Your task to perform on an android device: Go to battery settings Image 0: 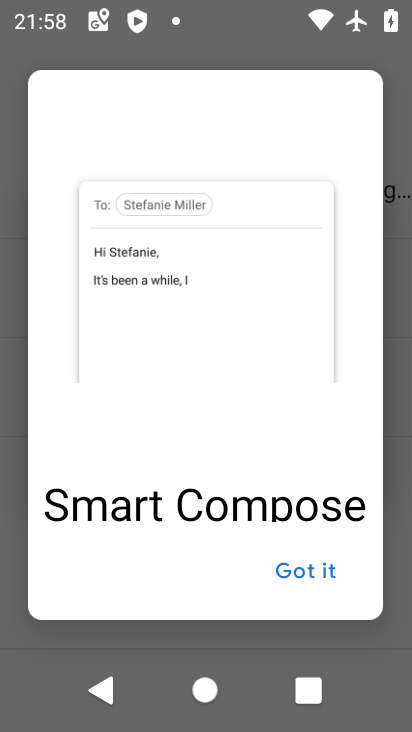
Step 0: press home button
Your task to perform on an android device: Go to battery settings Image 1: 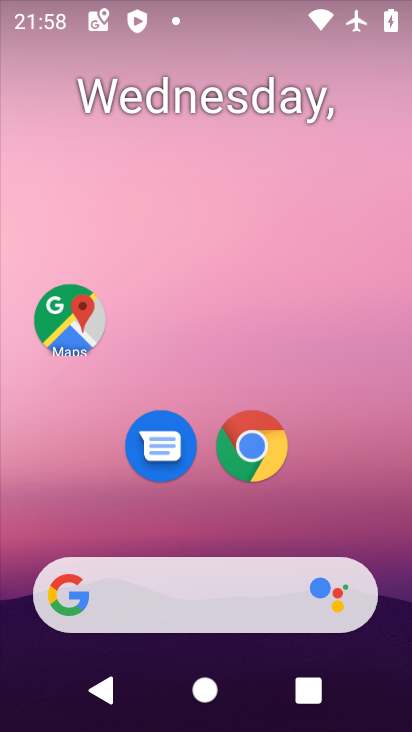
Step 1: drag from (138, 594) to (278, 65)
Your task to perform on an android device: Go to battery settings Image 2: 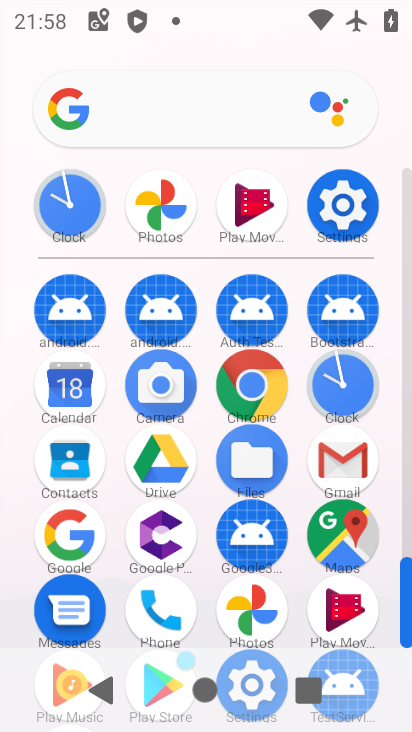
Step 2: click (336, 194)
Your task to perform on an android device: Go to battery settings Image 3: 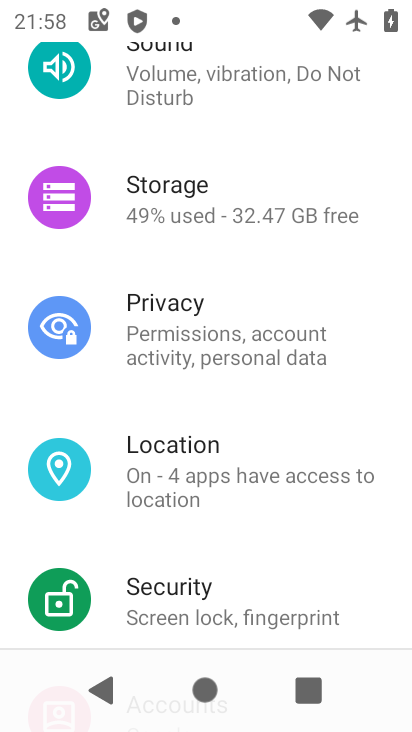
Step 3: drag from (294, 152) to (255, 569)
Your task to perform on an android device: Go to battery settings Image 4: 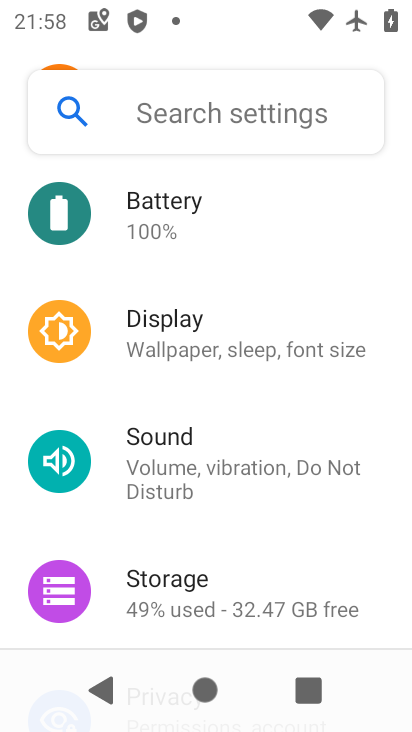
Step 4: click (163, 210)
Your task to perform on an android device: Go to battery settings Image 5: 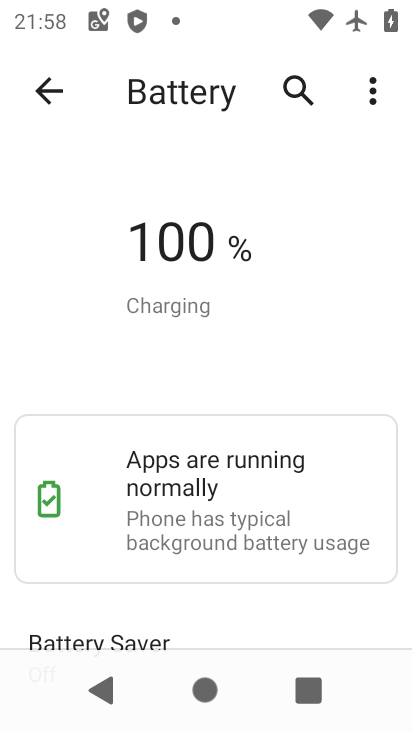
Step 5: task complete